Your task to perform on an android device: View the shopping cart on costco. Image 0: 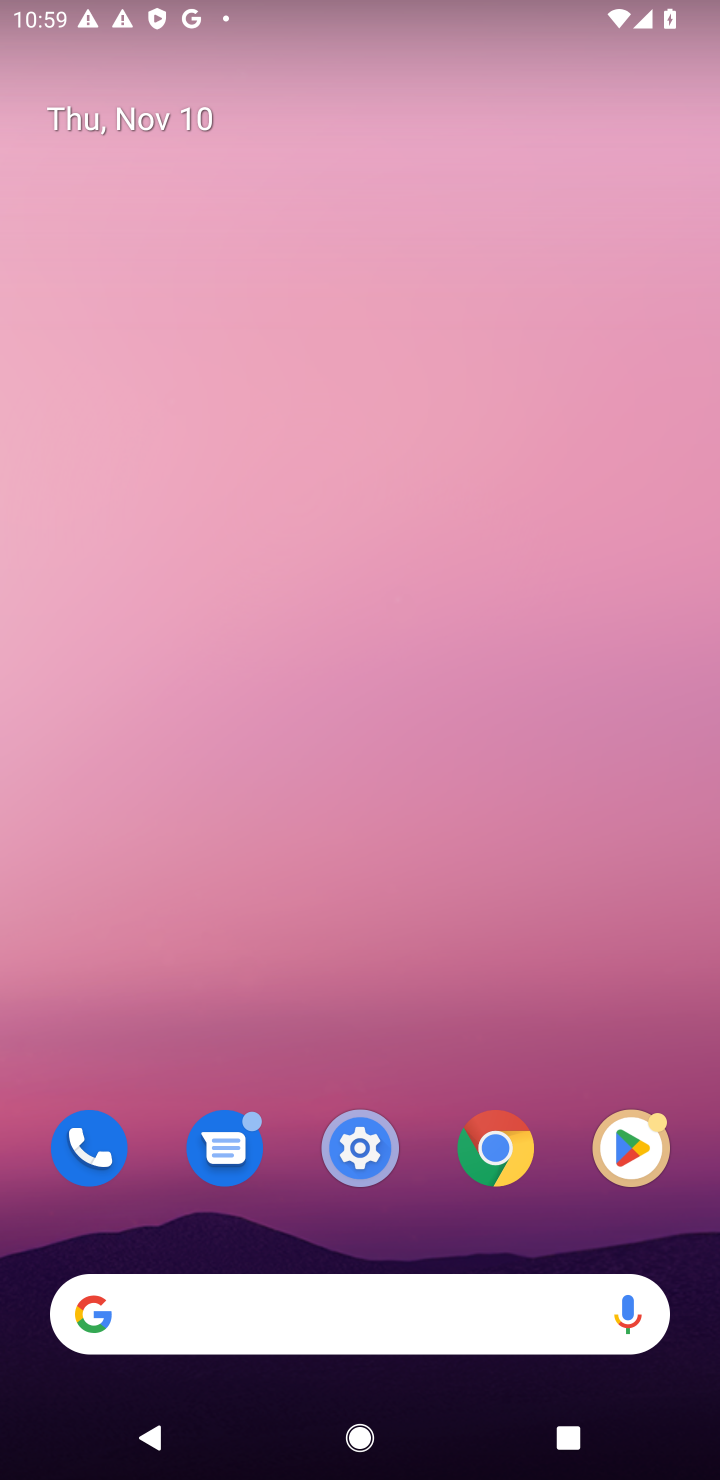
Step 0: click (493, 1138)
Your task to perform on an android device: View the shopping cart on costco. Image 1: 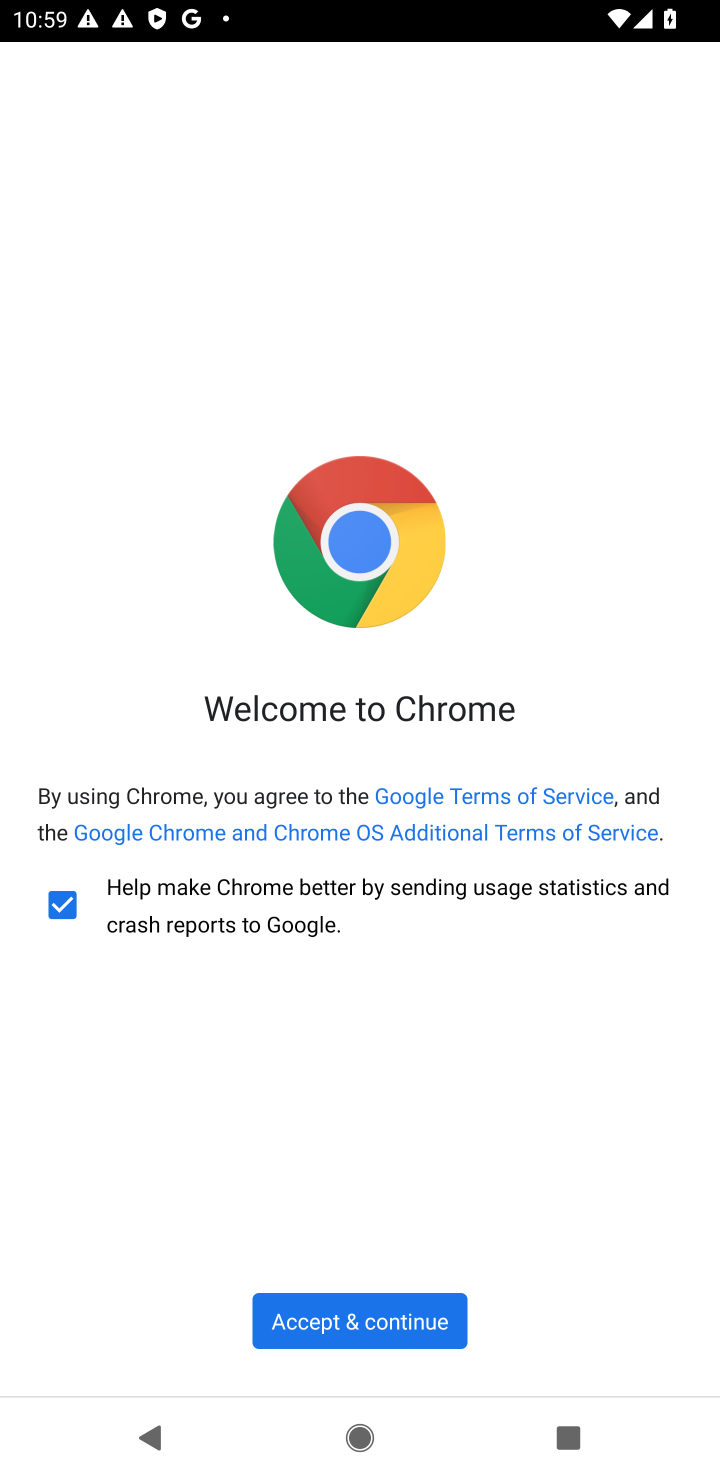
Step 1: click (413, 1307)
Your task to perform on an android device: View the shopping cart on costco. Image 2: 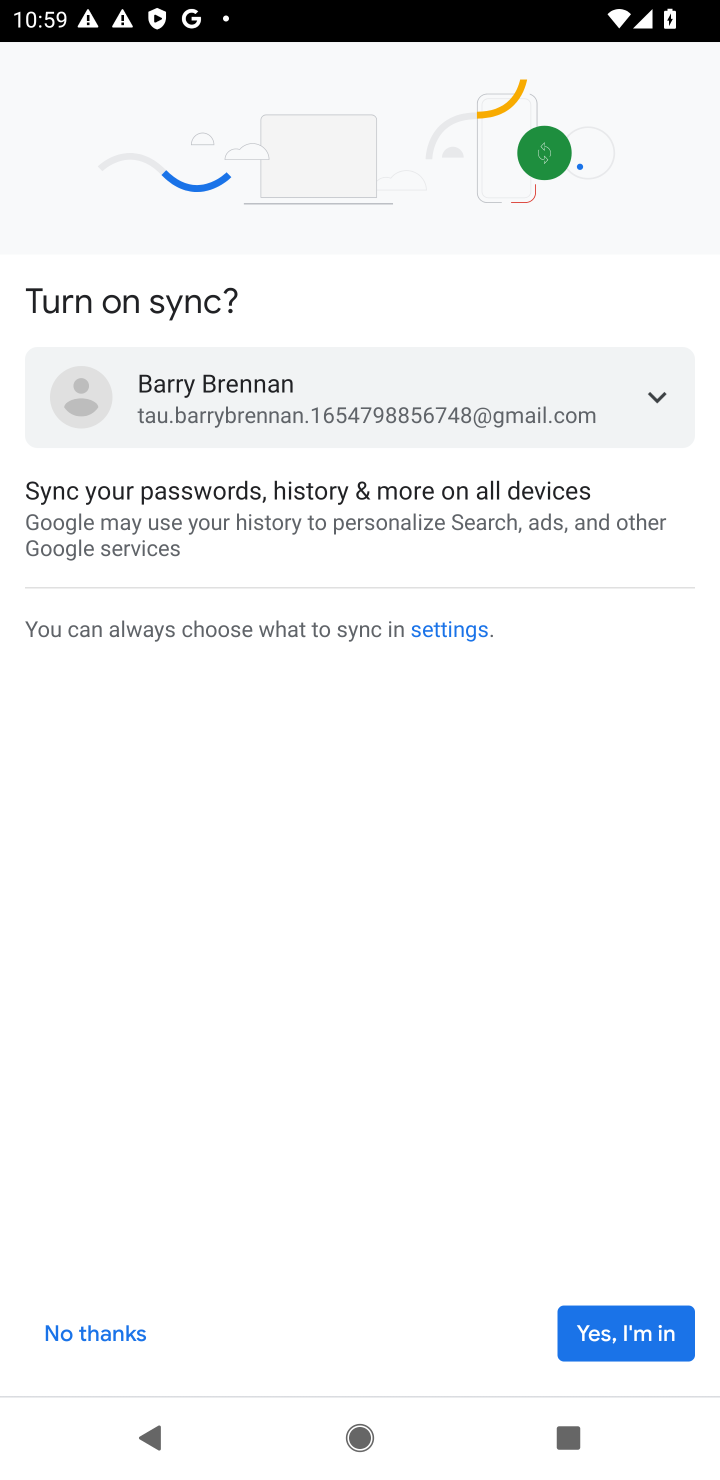
Step 2: click (595, 1336)
Your task to perform on an android device: View the shopping cart on costco. Image 3: 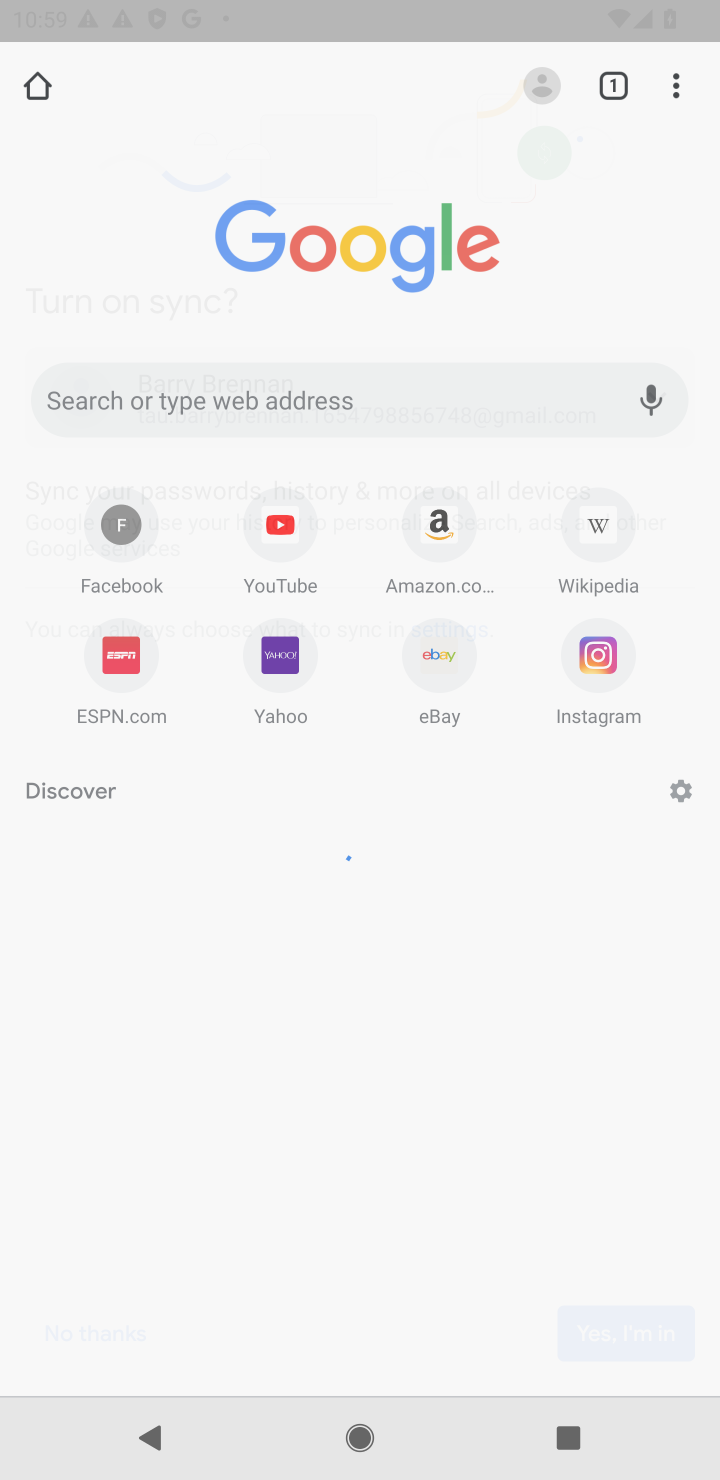
Step 3: click (600, 1347)
Your task to perform on an android device: View the shopping cart on costco. Image 4: 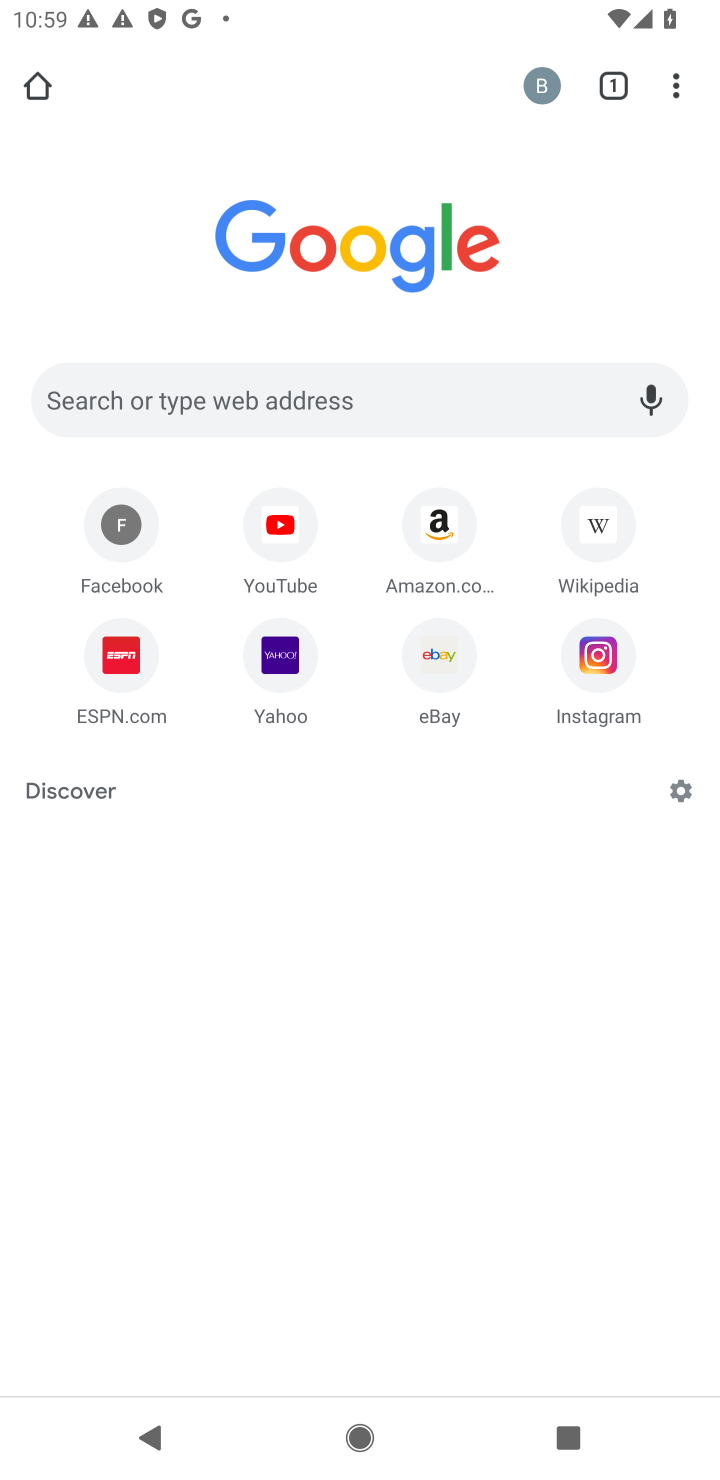
Step 4: click (322, 399)
Your task to perform on an android device: View the shopping cart on costco. Image 5: 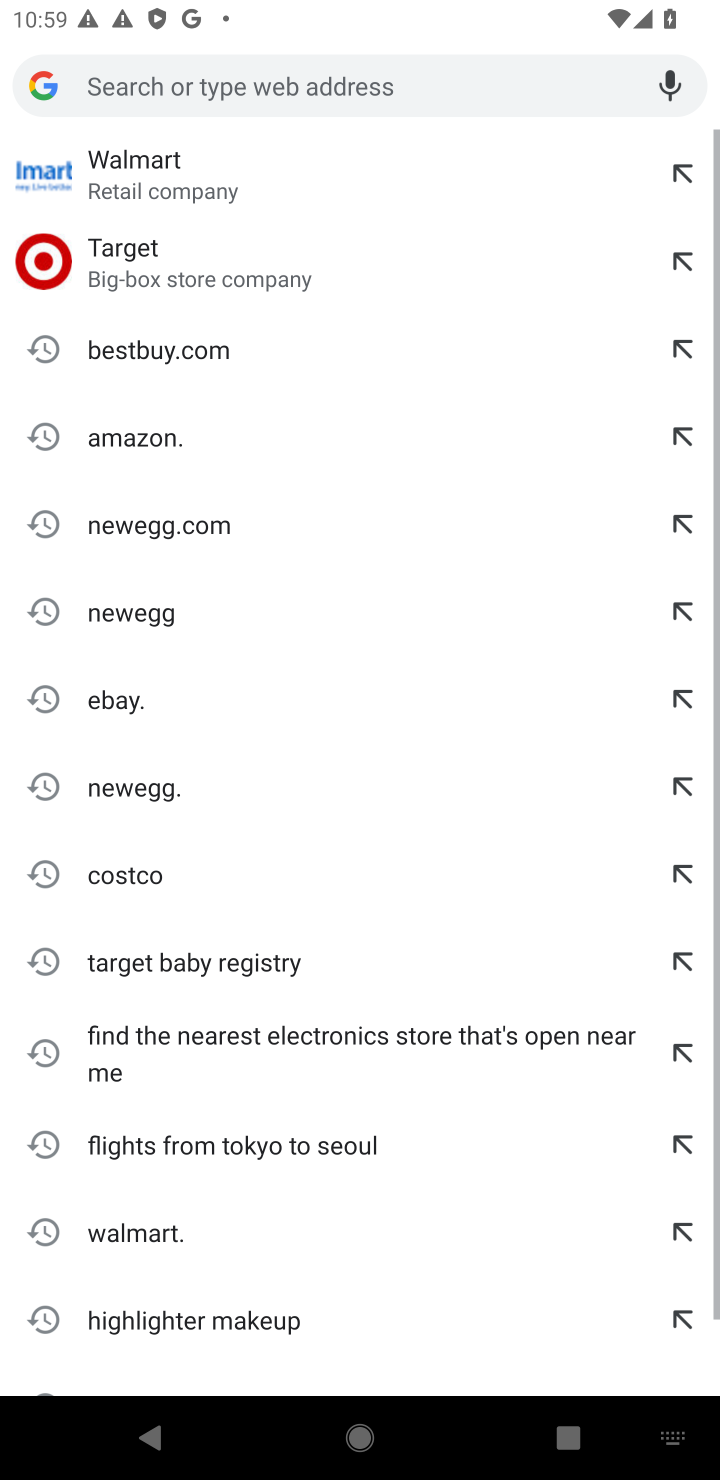
Step 5: click (124, 884)
Your task to perform on an android device: View the shopping cart on costco. Image 6: 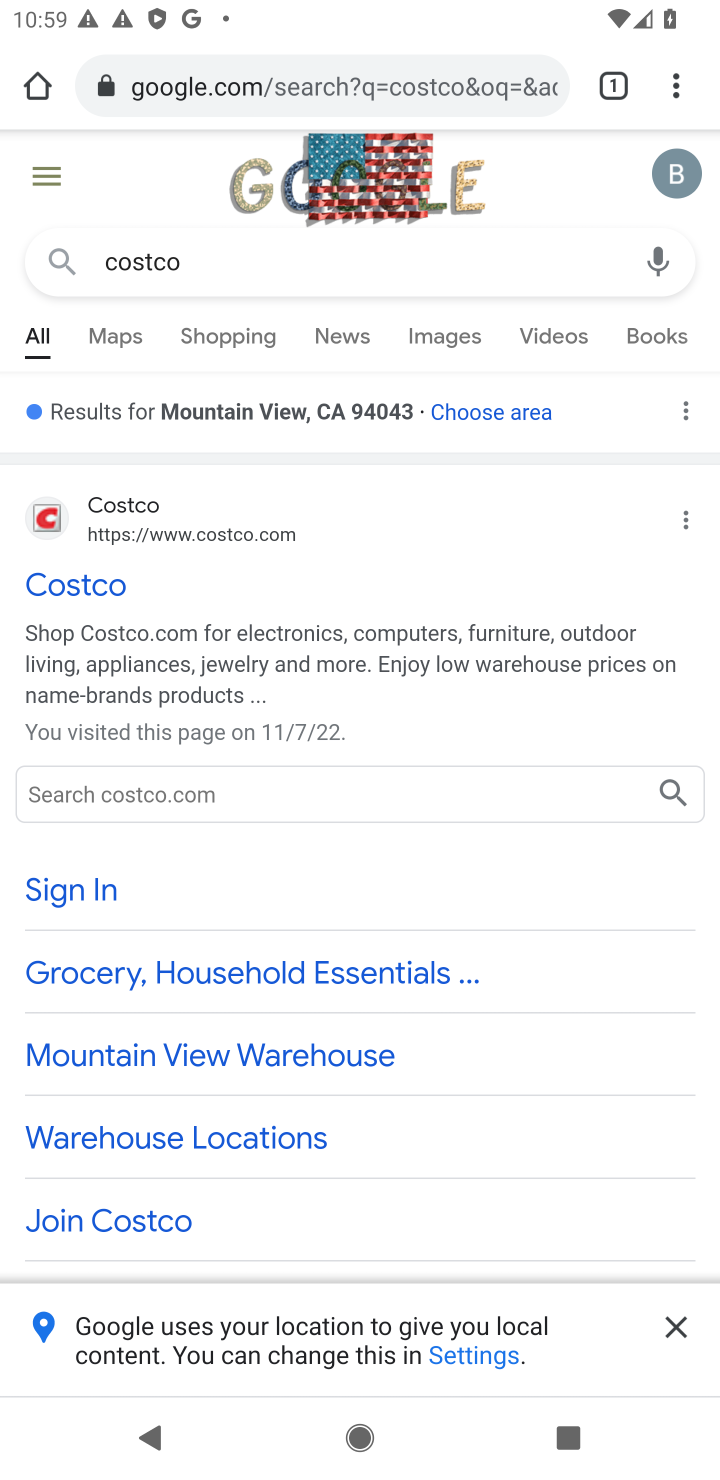
Step 6: click (76, 580)
Your task to perform on an android device: View the shopping cart on costco. Image 7: 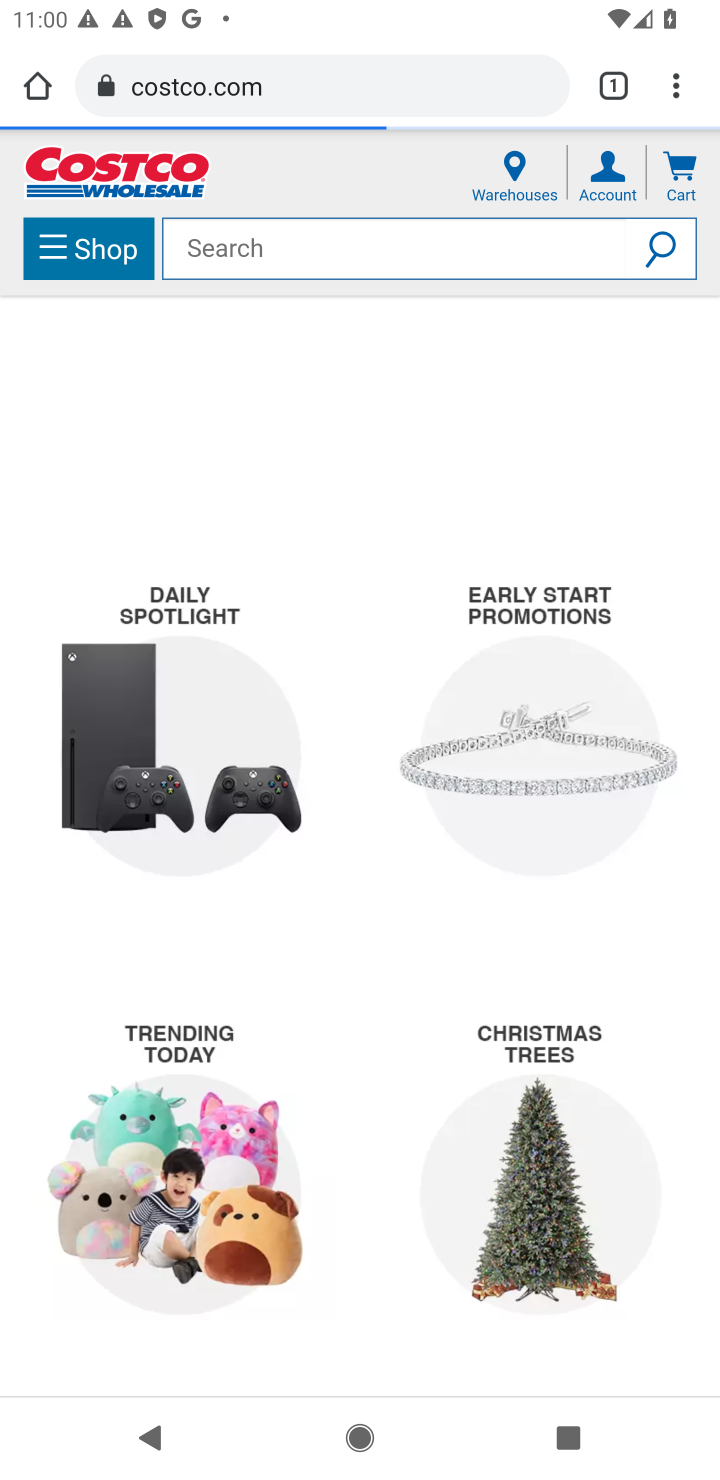
Step 7: task complete